Your task to perform on an android device: turn on the 12-hour format for clock Image 0: 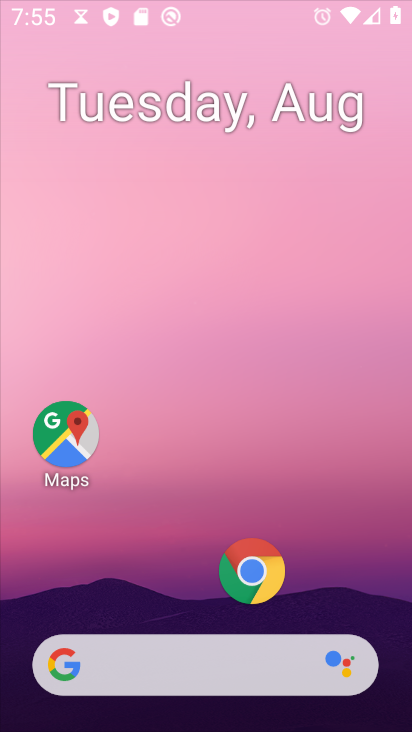
Step 0: press home button
Your task to perform on an android device: turn on the 12-hour format for clock Image 1: 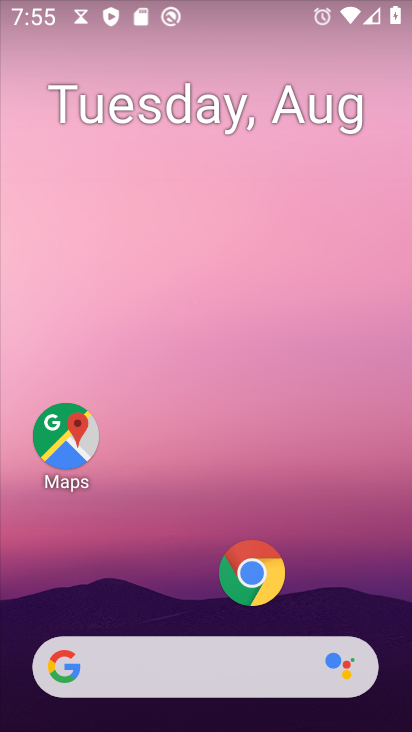
Step 1: press home button
Your task to perform on an android device: turn on the 12-hour format for clock Image 2: 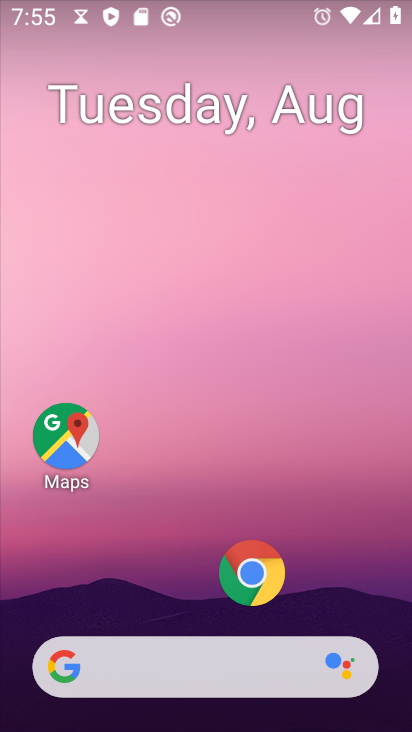
Step 2: press home button
Your task to perform on an android device: turn on the 12-hour format for clock Image 3: 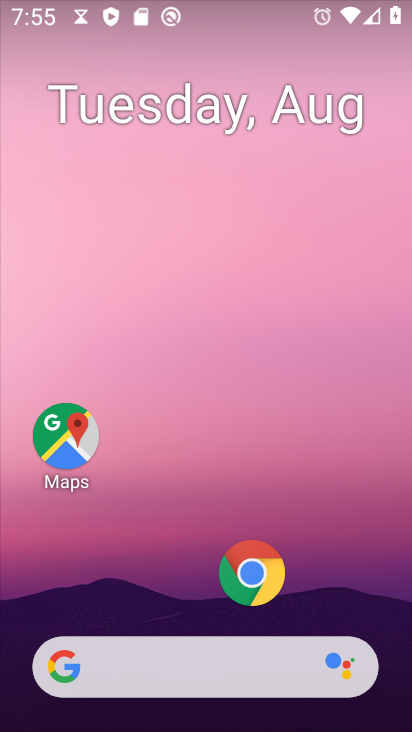
Step 3: drag from (198, 611) to (256, 0)
Your task to perform on an android device: turn on the 12-hour format for clock Image 4: 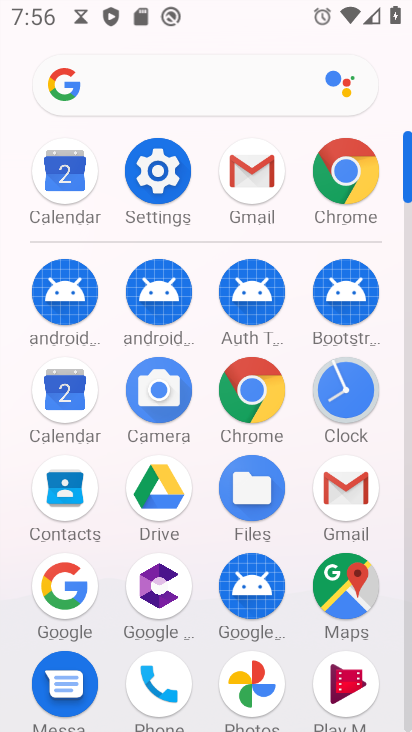
Step 4: click (338, 388)
Your task to perform on an android device: turn on the 12-hour format for clock Image 5: 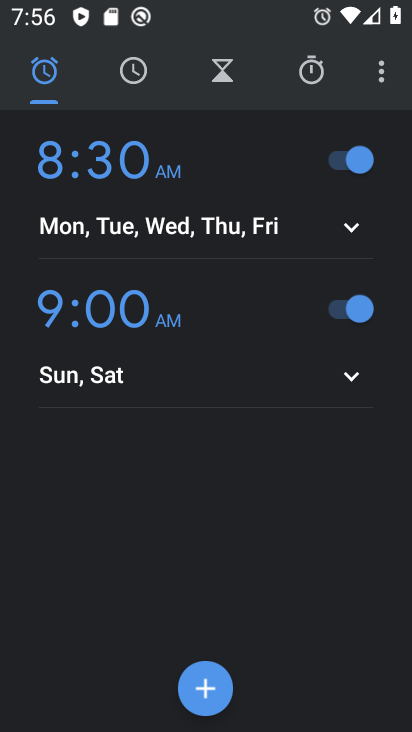
Step 5: click (385, 71)
Your task to perform on an android device: turn on the 12-hour format for clock Image 6: 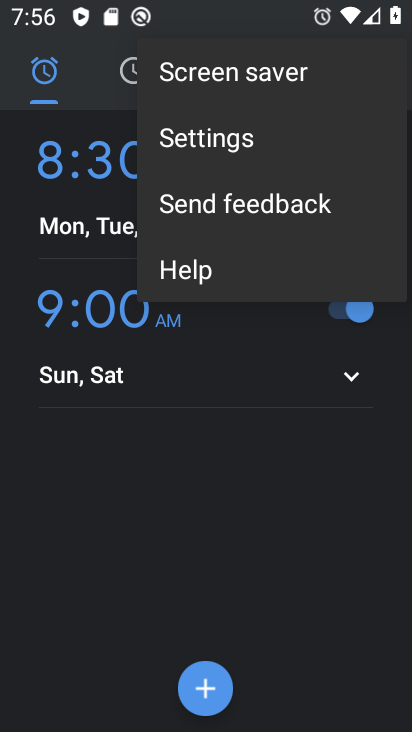
Step 6: click (265, 135)
Your task to perform on an android device: turn on the 12-hour format for clock Image 7: 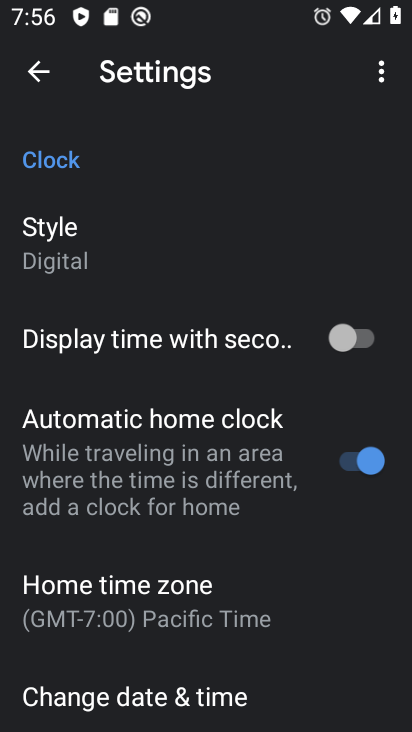
Step 7: click (270, 697)
Your task to perform on an android device: turn on the 12-hour format for clock Image 8: 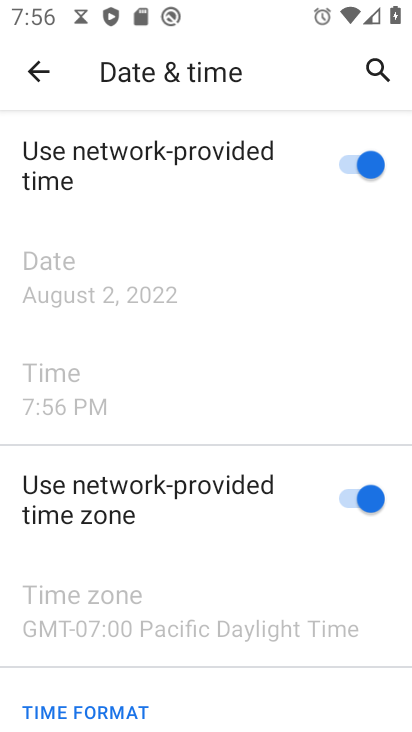
Step 8: task complete